Your task to perform on an android device: Open Google Chrome and click the shortcut for Amazon.com Image 0: 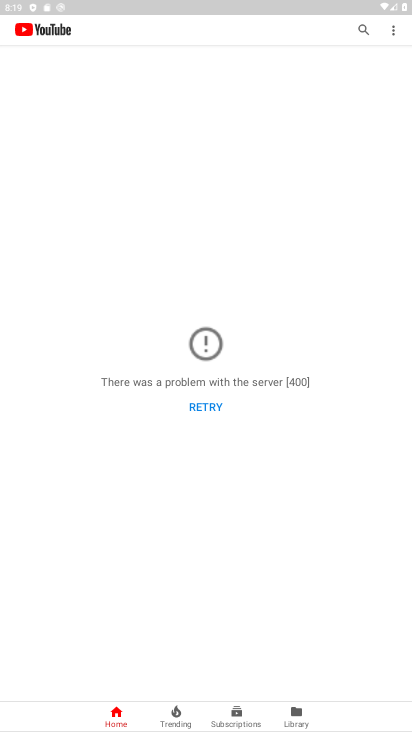
Step 0: press home button
Your task to perform on an android device: Open Google Chrome and click the shortcut for Amazon.com Image 1: 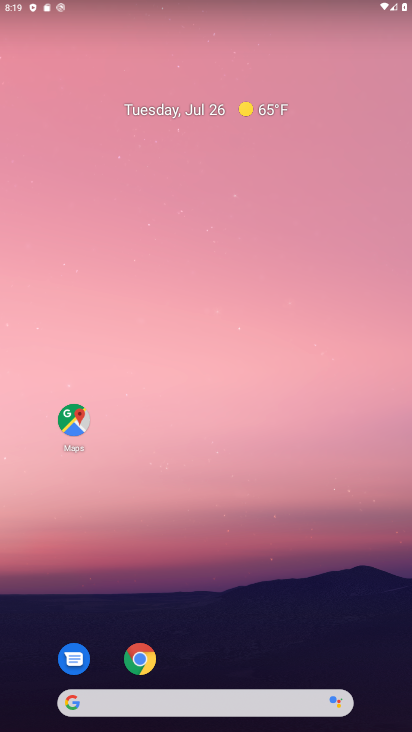
Step 1: click (135, 660)
Your task to perform on an android device: Open Google Chrome and click the shortcut for Amazon.com Image 2: 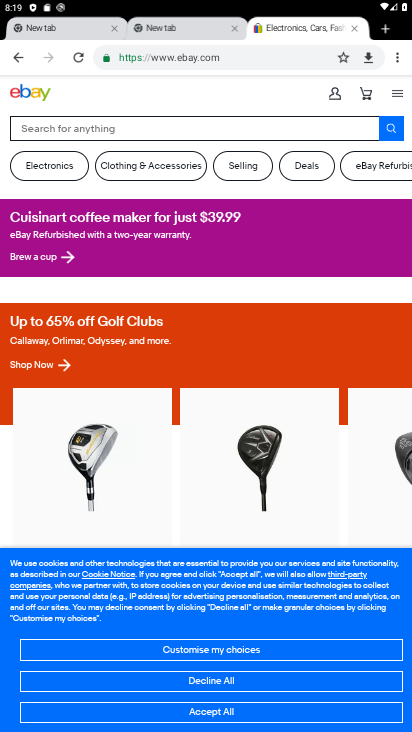
Step 2: click (400, 59)
Your task to perform on an android device: Open Google Chrome and click the shortcut for Amazon.com Image 3: 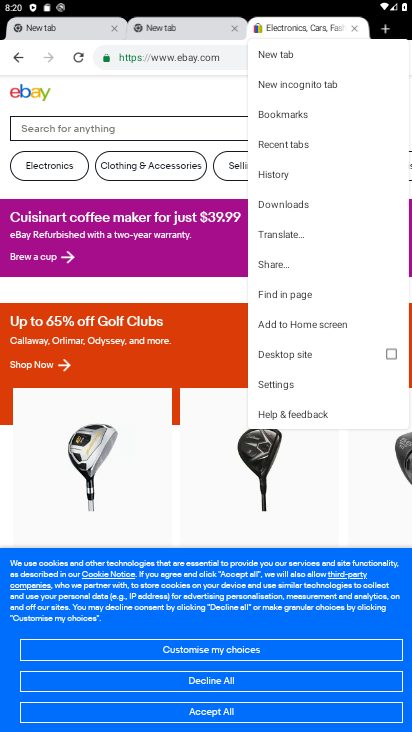
Step 3: click (283, 59)
Your task to perform on an android device: Open Google Chrome and click the shortcut for Amazon.com Image 4: 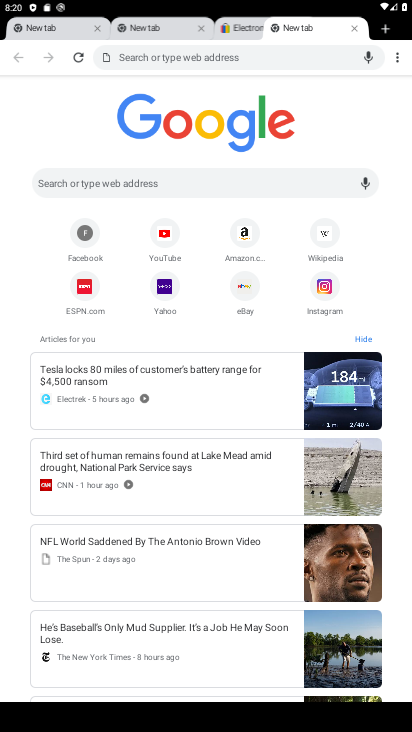
Step 4: click (245, 236)
Your task to perform on an android device: Open Google Chrome and click the shortcut for Amazon.com Image 5: 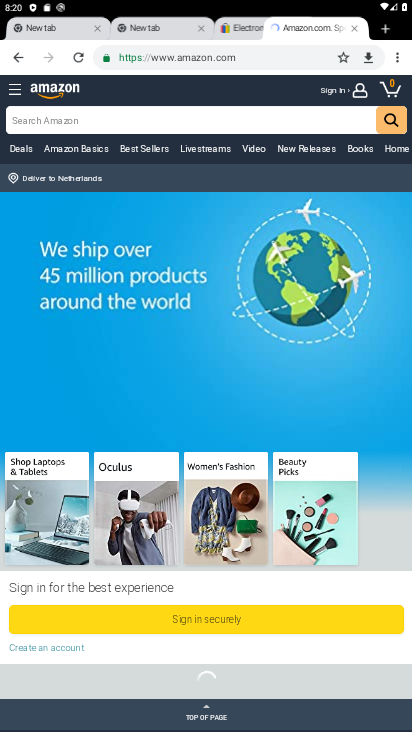
Step 5: task complete